Your task to perform on an android device: Search for Italian restaurants on Maps Image 0: 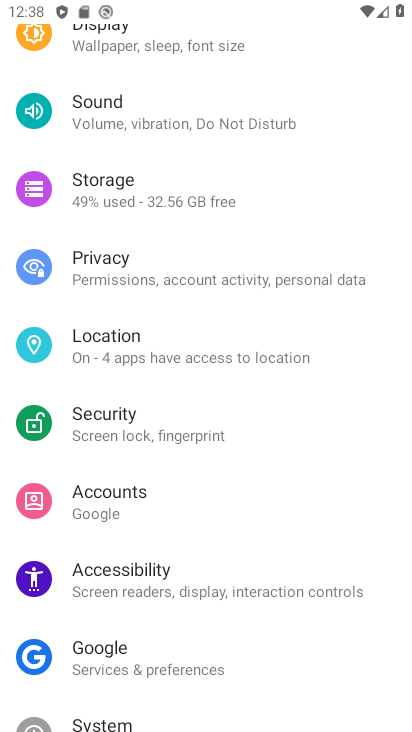
Step 0: press home button
Your task to perform on an android device: Search for Italian restaurants on Maps Image 1: 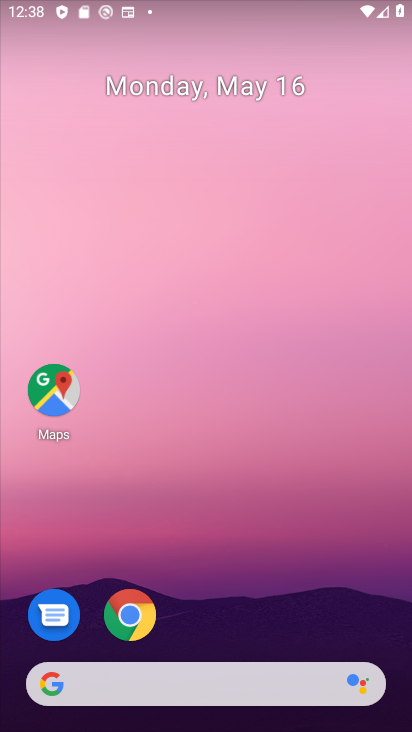
Step 1: click (59, 388)
Your task to perform on an android device: Search for Italian restaurants on Maps Image 2: 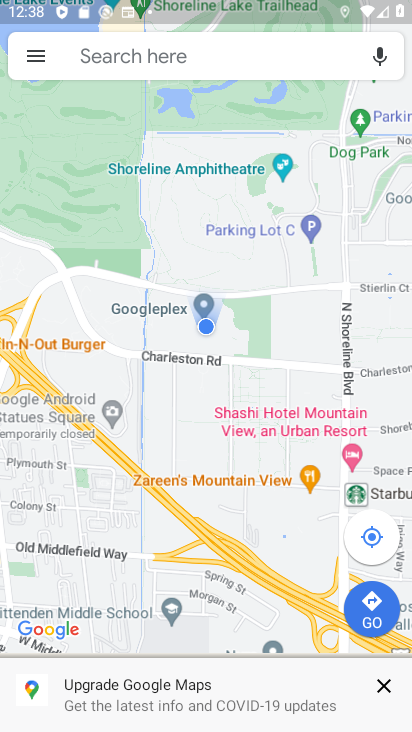
Step 2: click (273, 61)
Your task to perform on an android device: Search for Italian restaurants on Maps Image 3: 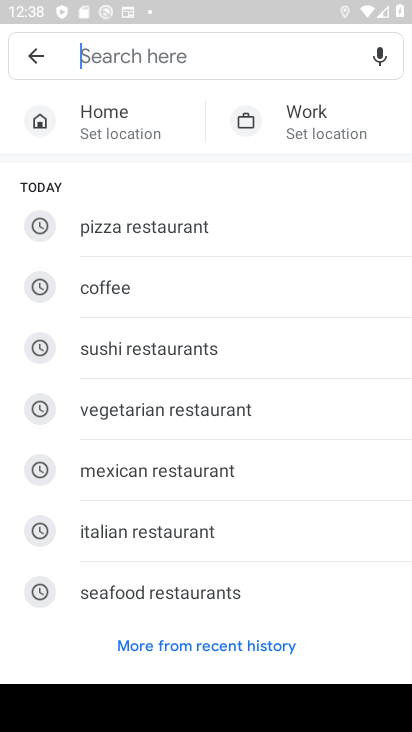
Step 3: type "Italian restaurants"
Your task to perform on an android device: Search for Italian restaurants on Maps Image 4: 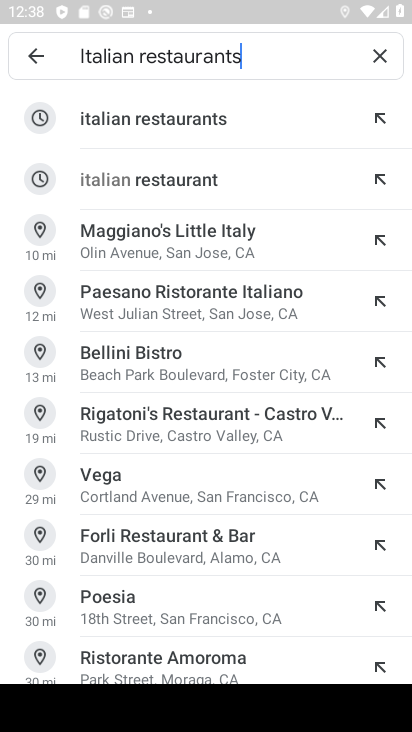
Step 4: click (163, 124)
Your task to perform on an android device: Search for Italian restaurants on Maps Image 5: 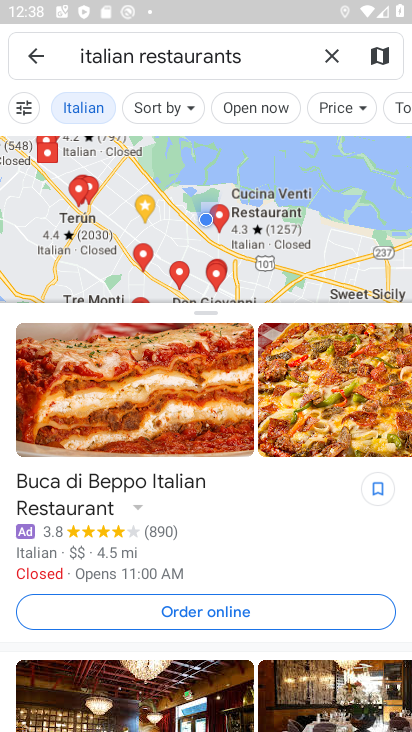
Step 5: task complete